Your task to perform on an android device: all mails in gmail Image 0: 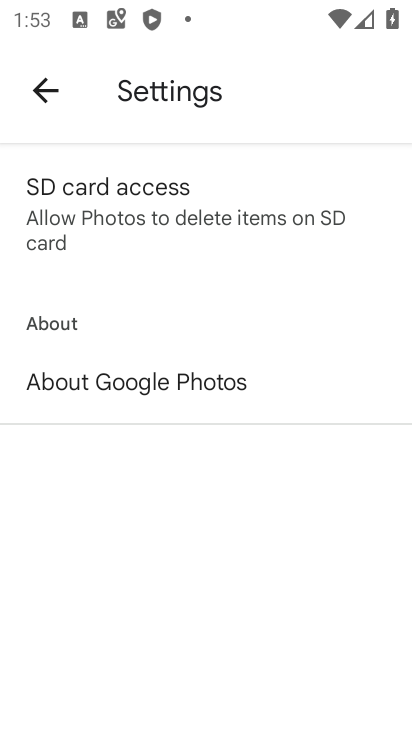
Step 0: press home button
Your task to perform on an android device: all mails in gmail Image 1: 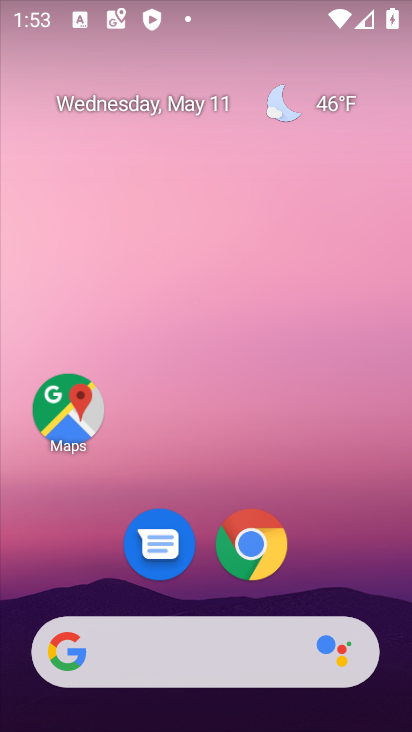
Step 1: drag from (398, 639) to (307, 82)
Your task to perform on an android device: all mails in gmail Image 2: 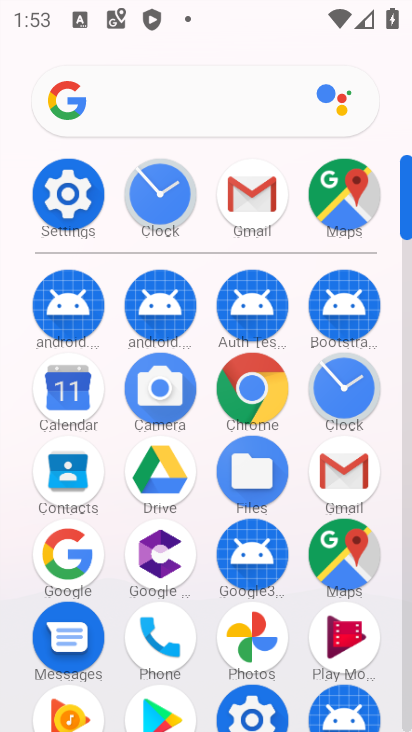
Step 2: click (407, 711)
Your task to perform on an android device: all mails in gmail Image 3: 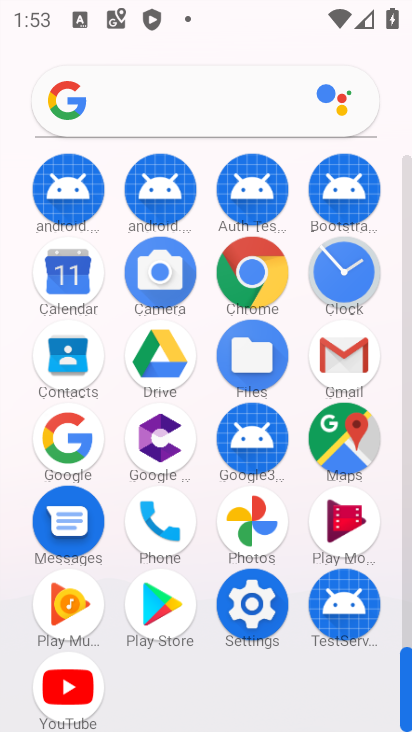
Step 3: click (344, 351)
Your task to perform on an android device: all mails in gmail Image 4: 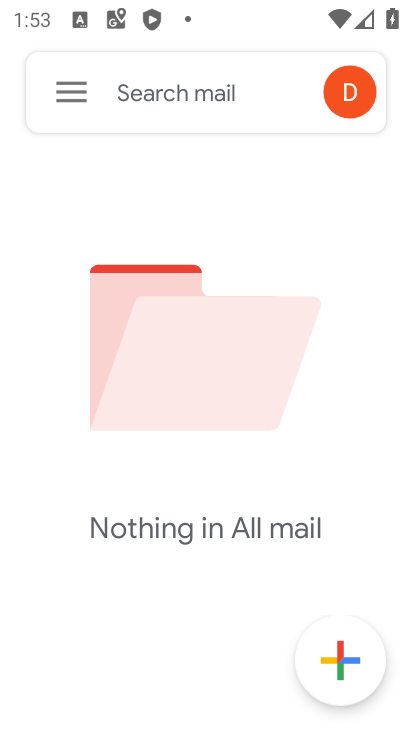
Step 4: click (69, 92)
Your task to perform on an android device: all mails in gmail Image 5: 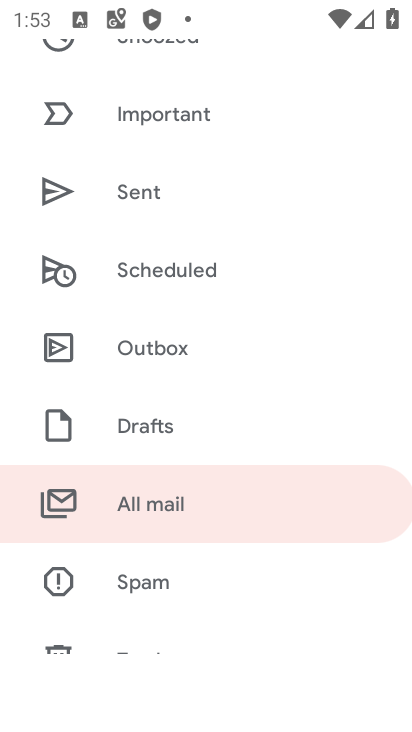
Step 5: click (183, 497)
Your task to perform on an android device: all mails in gmail Image 6: 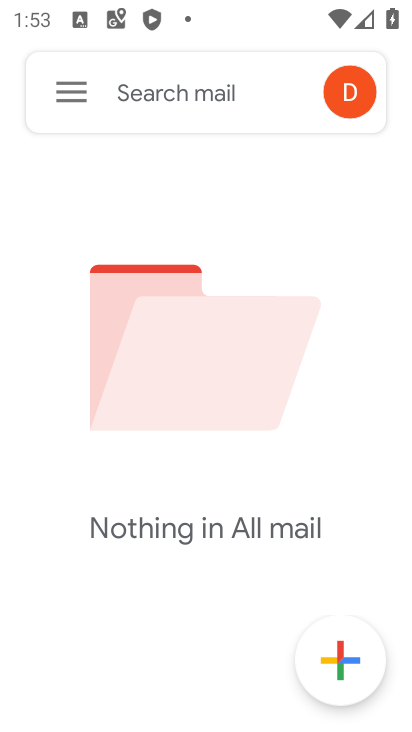
Step 6: task complete